Your task to perform on an android device: turn off notifications in google photos Image 0: 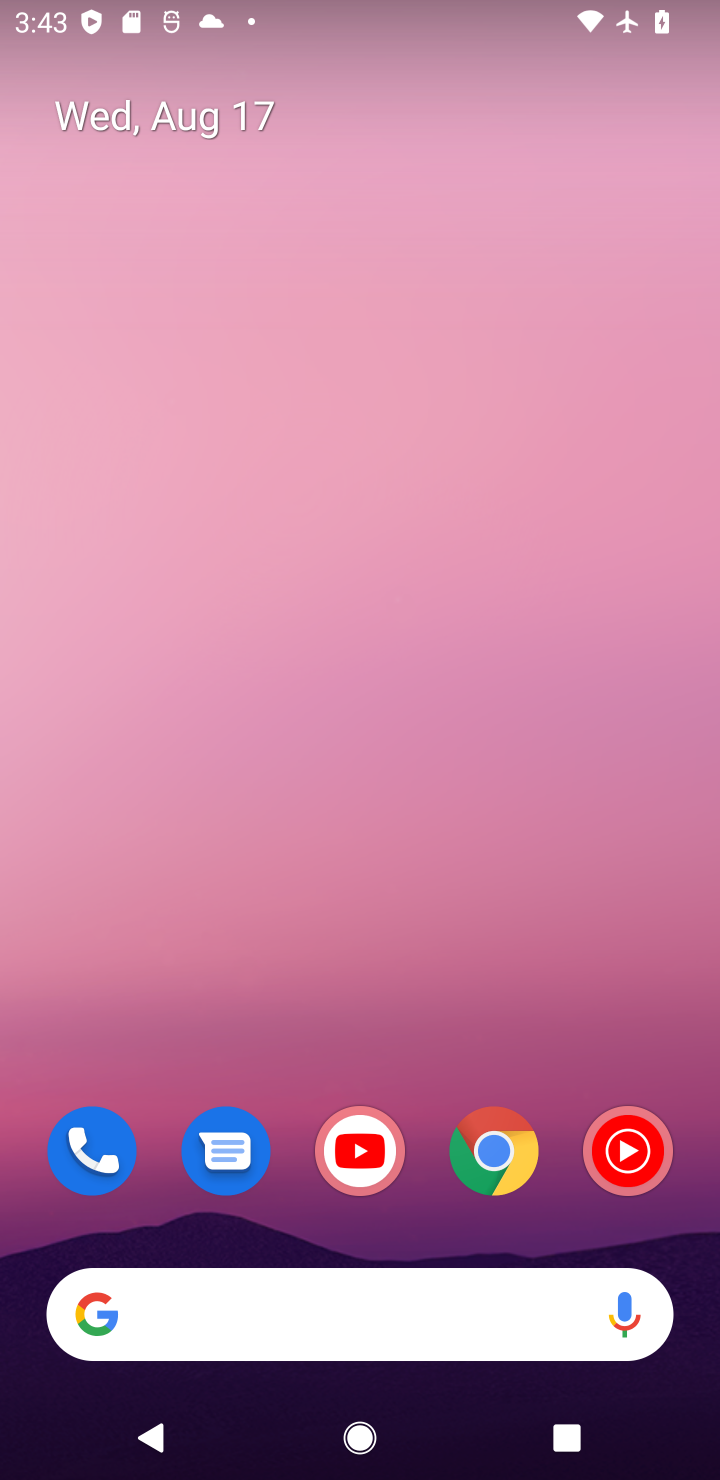
Step 0: drag from (476, 1021) to (525, 567)
Your task to perform on an android device: turn off notifications in google photos Image 1: 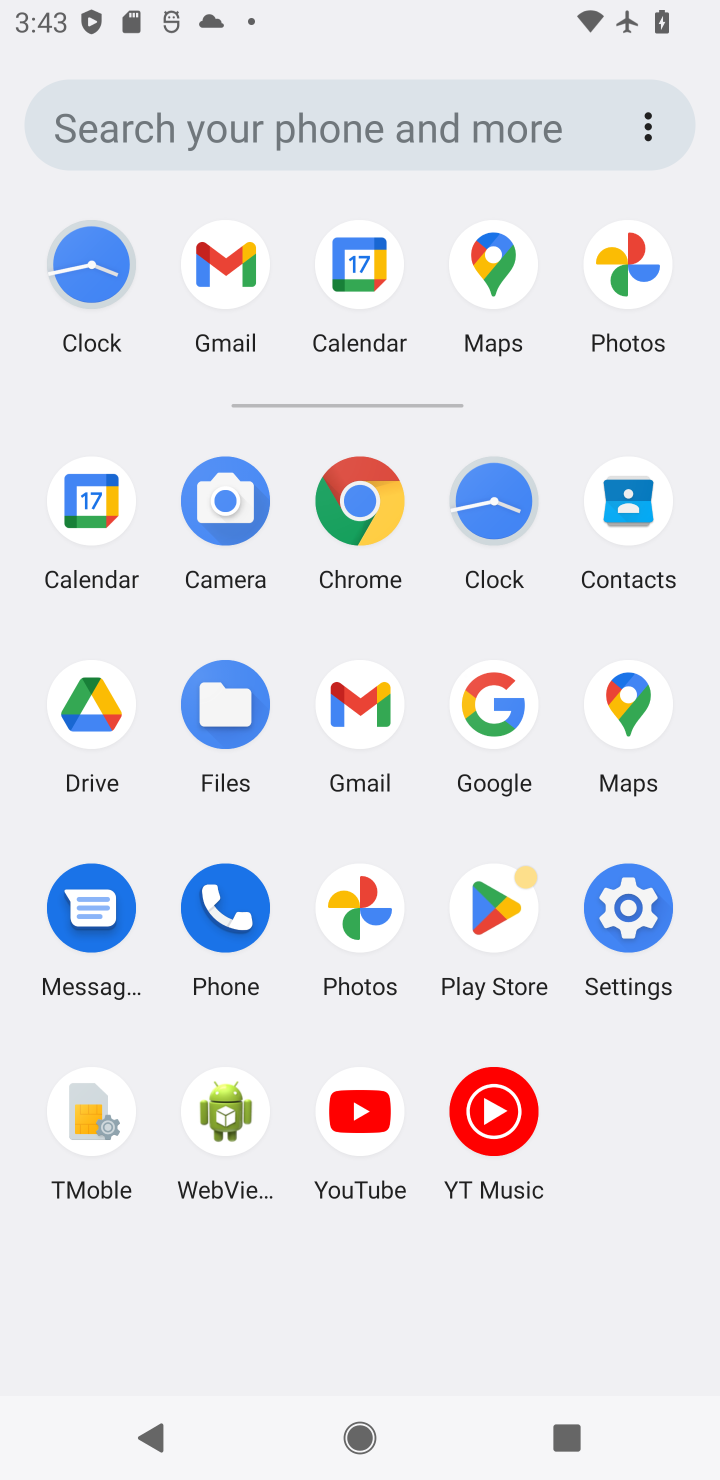
Step 1: click (343, 875)
Your task to perform on an android device: turn off notifications in google photos Image 2: 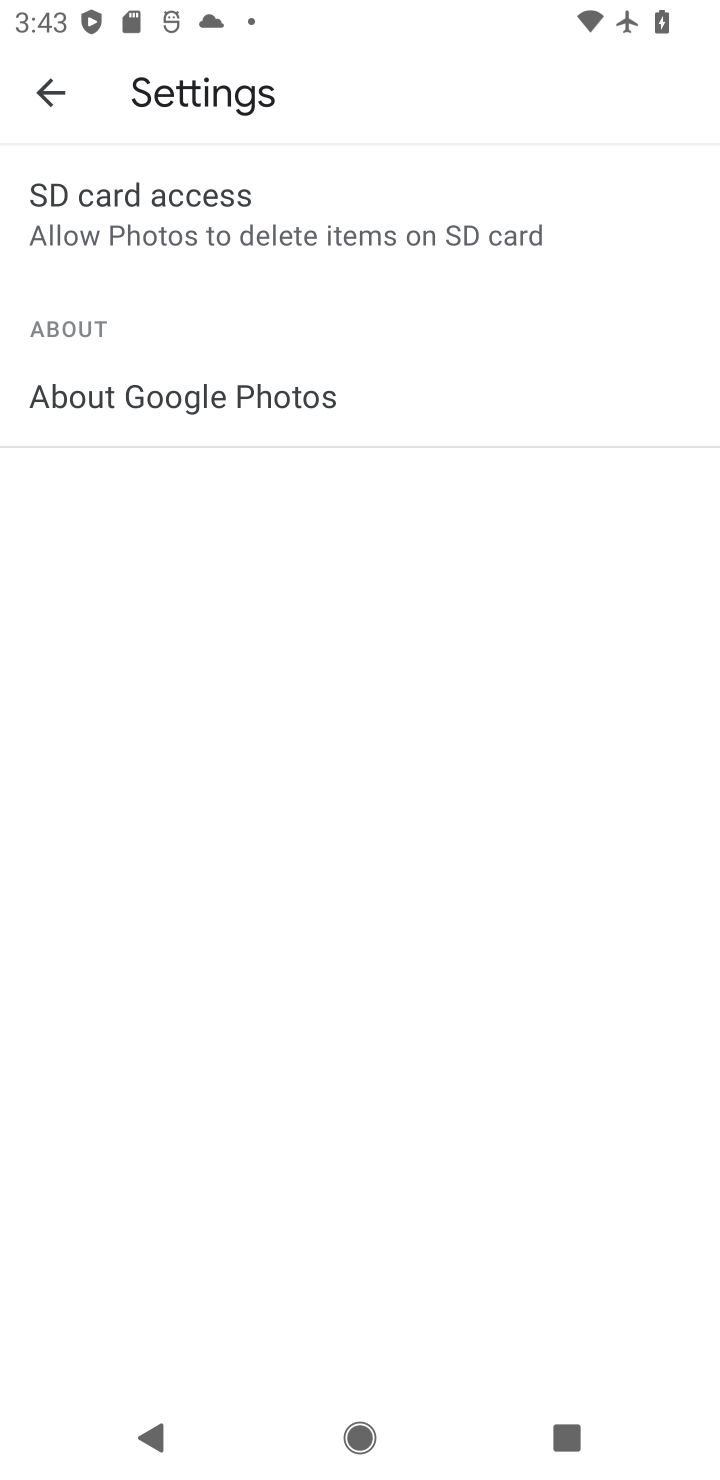
Step 2: click (34, 101)
Your task to perform on an android device: turn off notifications in google photos Image 3: 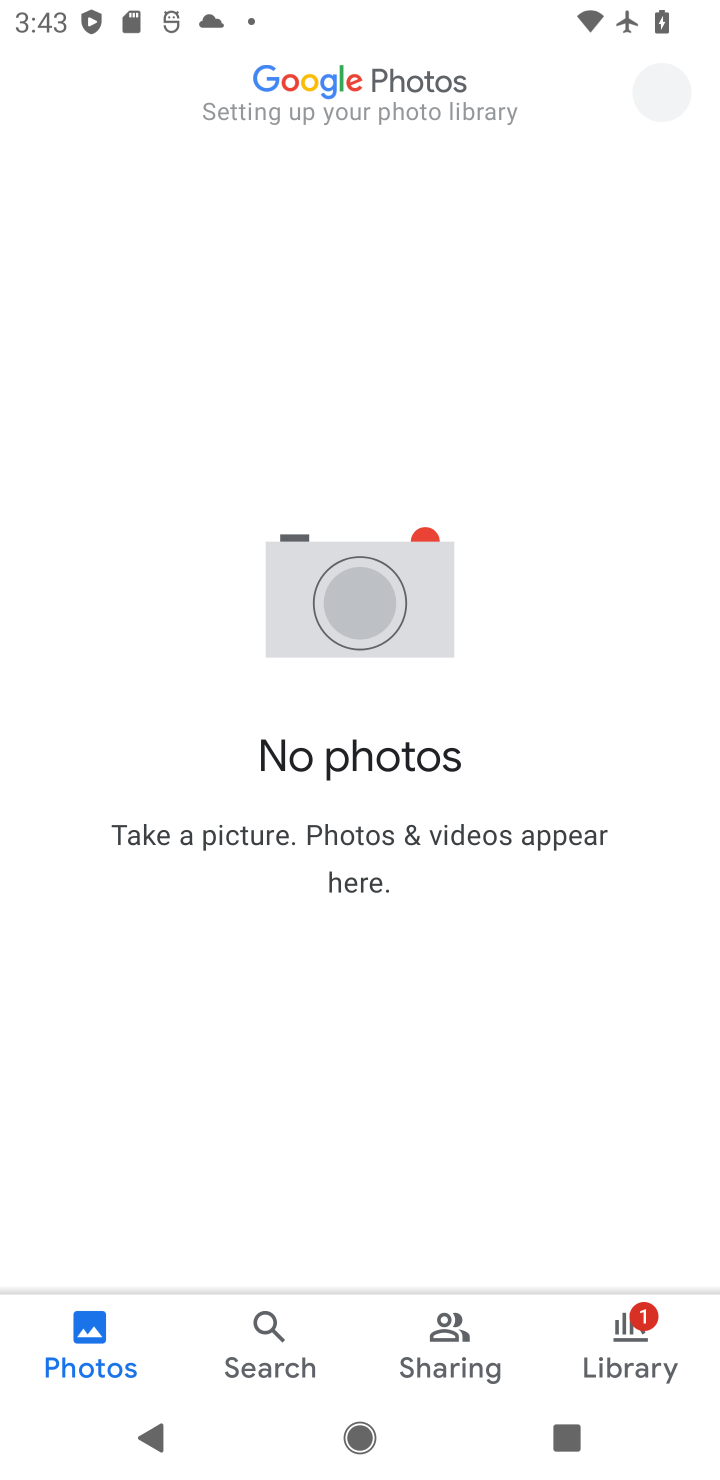
Step 3: click (664, 89)
Your task to perform on an android device: turn off notifications in google photos Image 4: 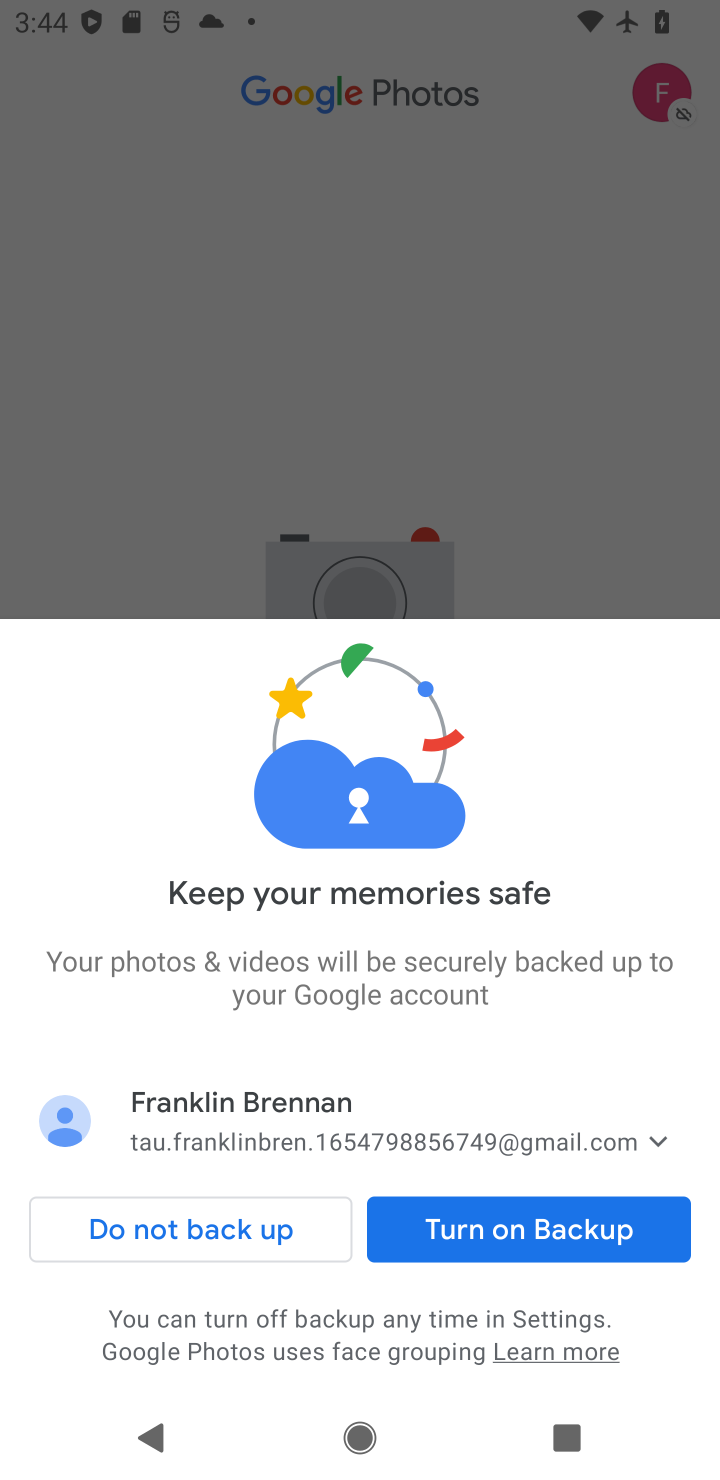
Step 4: click (228, 1232)
Your task to perform on an android device: turn off notifications in google photos Image 5: 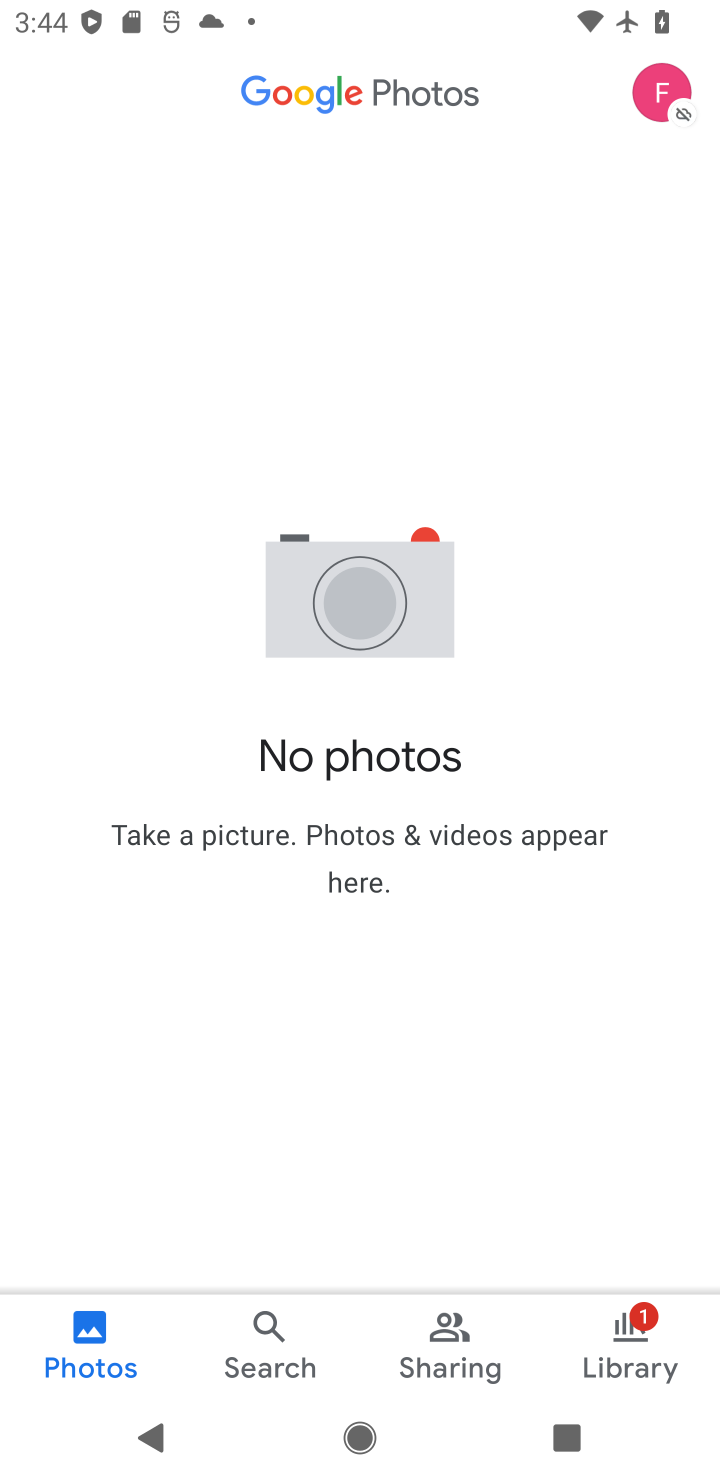
Step 5: click (664, 81)
Your task to perform on an android device: turn off notifications in google photos Image 6: 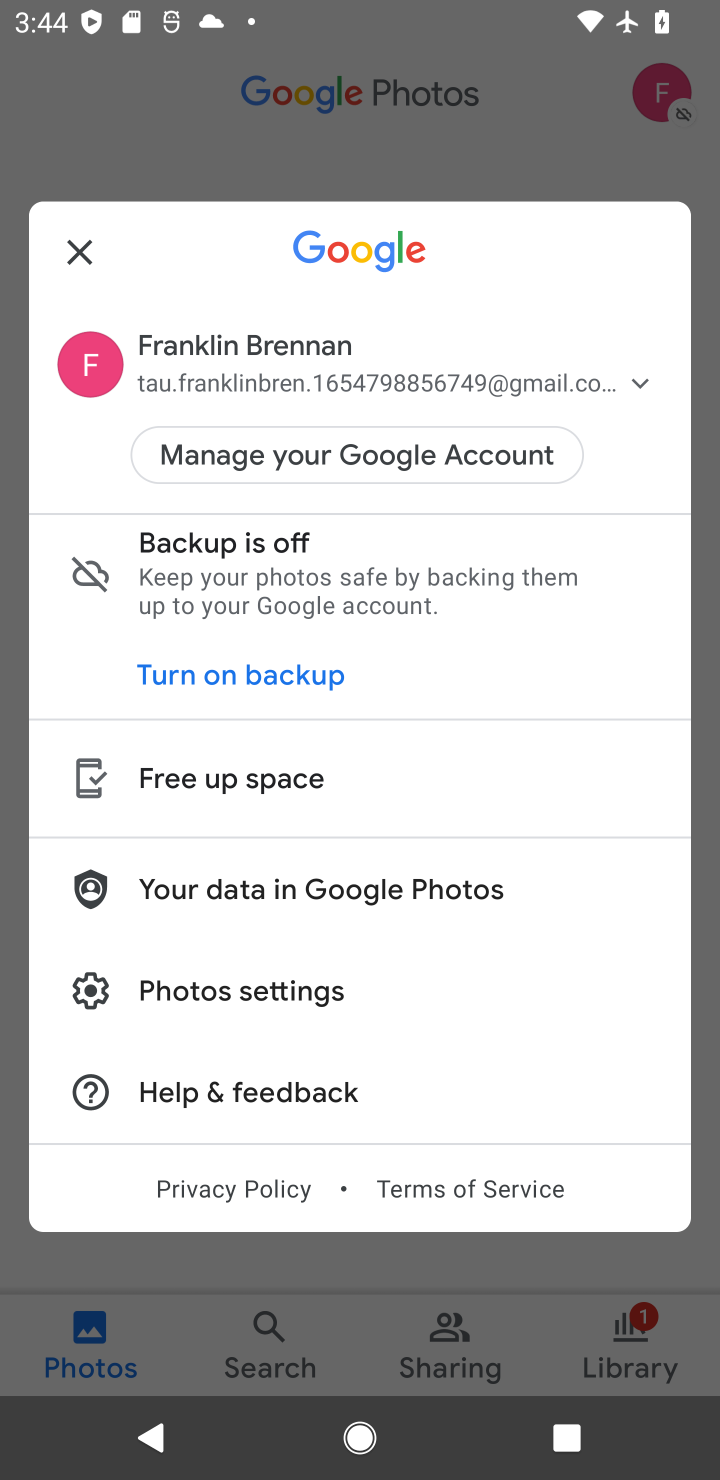
Step 6: click (251, 997)
Your task to perform on an android device: turn off notifications in google photos Image 7: 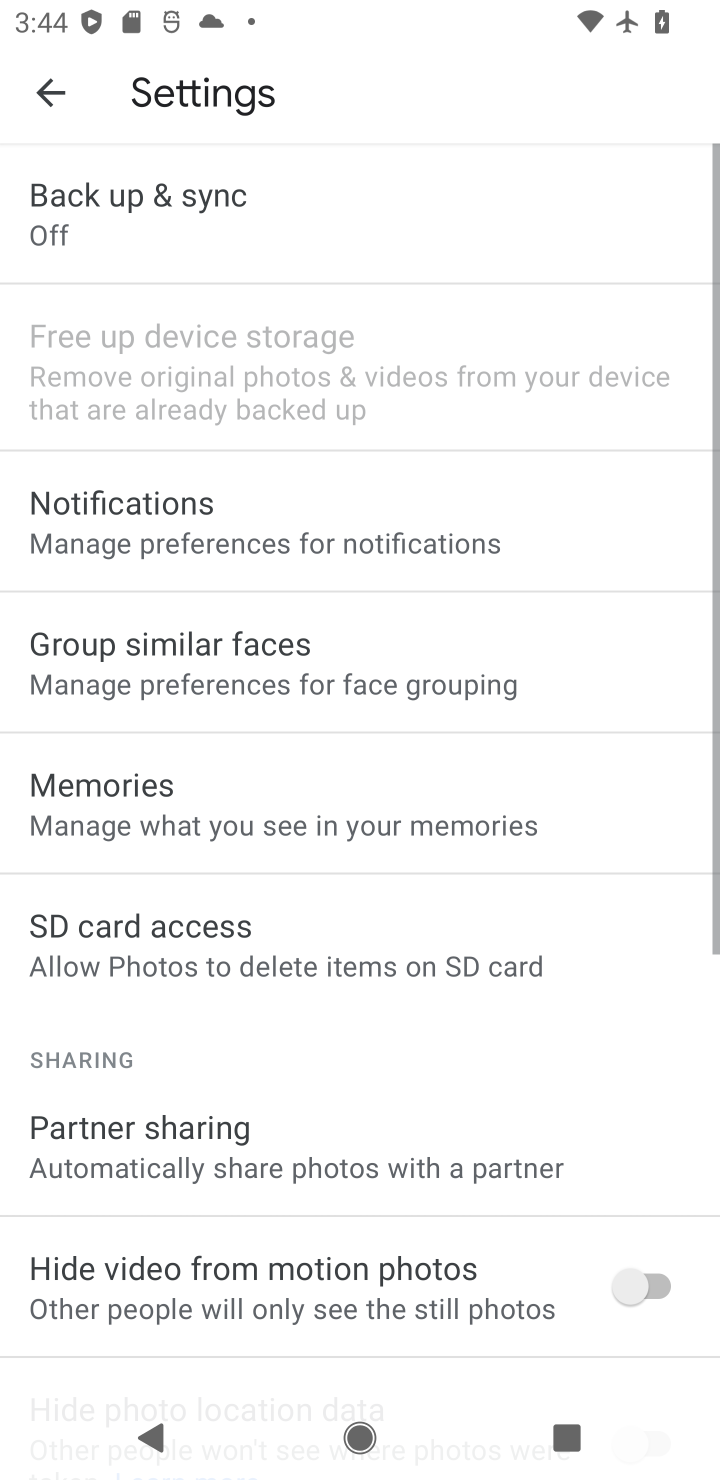
Step 7: drag from (231, 1210) to (710, 159)
Your task to perform on an android device: turn off notifications in google photos Image 8: 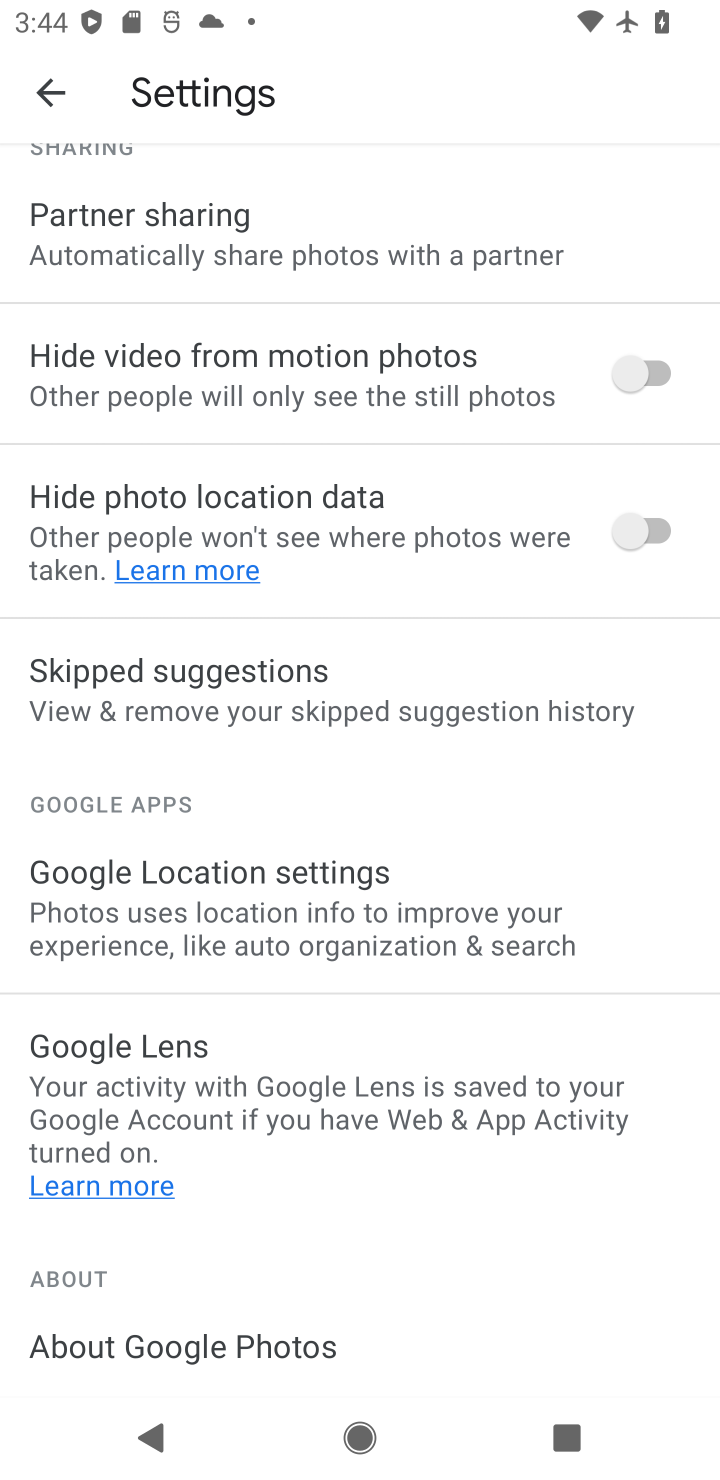
Step 8: drag from (244, 330) to (146, 1327)
Your task to perform on an android device: turn off notifications in google photos Image 9: 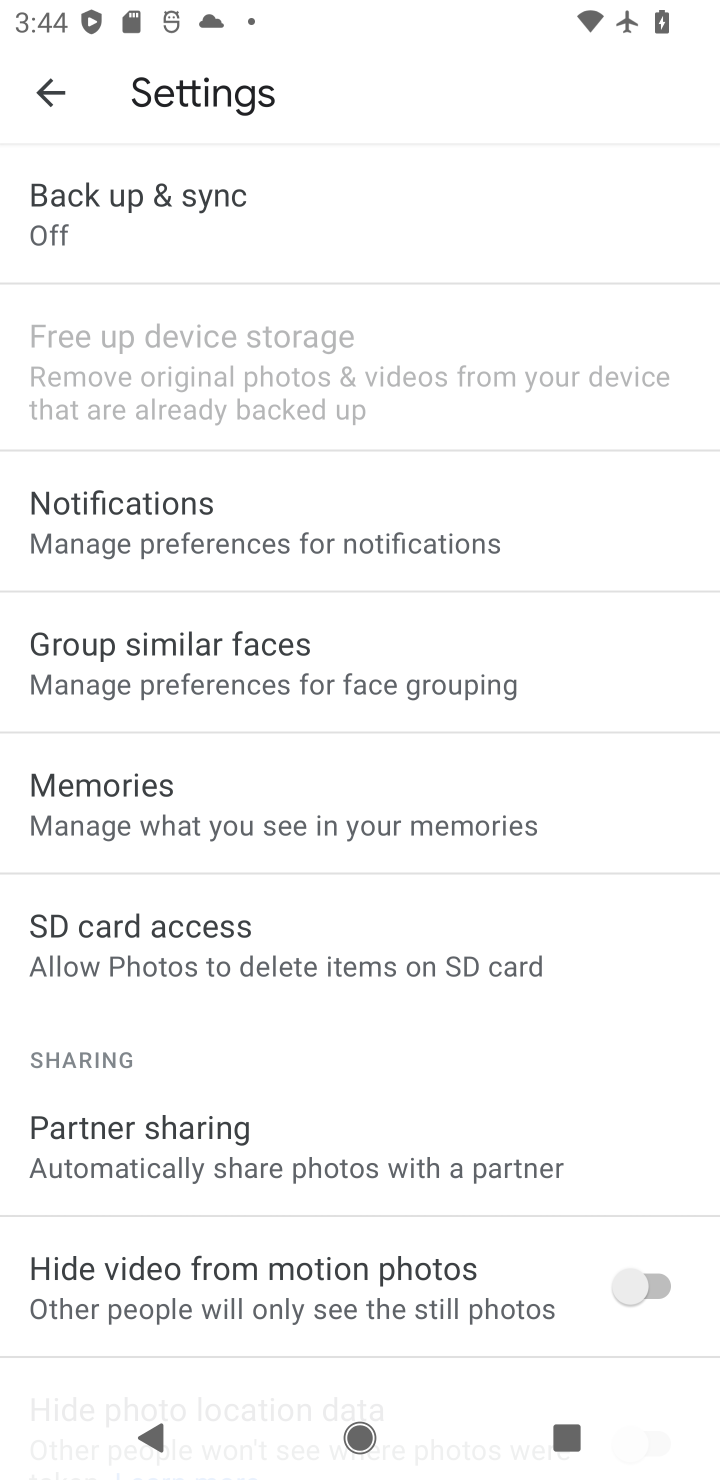
Step 9: click (160, 219)
Your task to perform on an android device: turn off notifications in google photos Image 10: 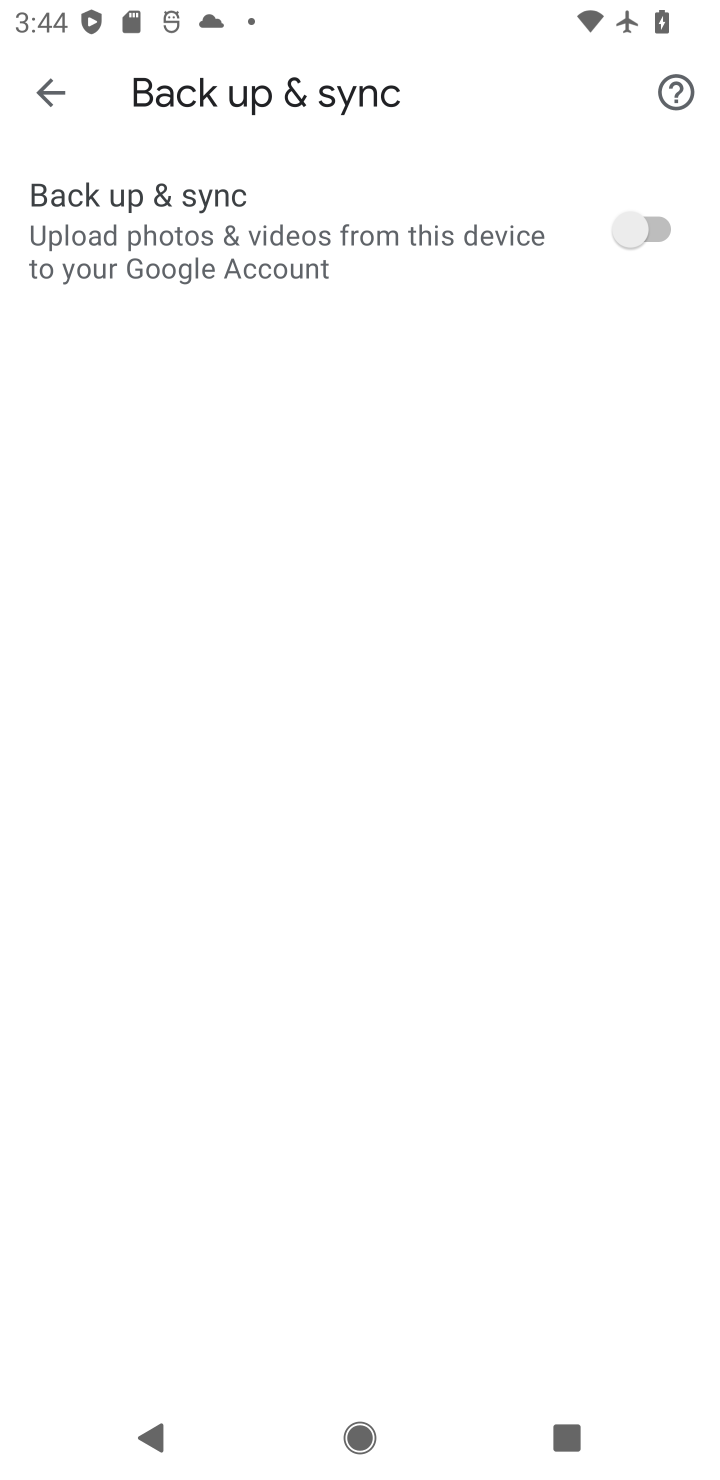
Step 10: click (650, 227)
Your task to perform on an android device: turn off notifications in google photos Image 11: 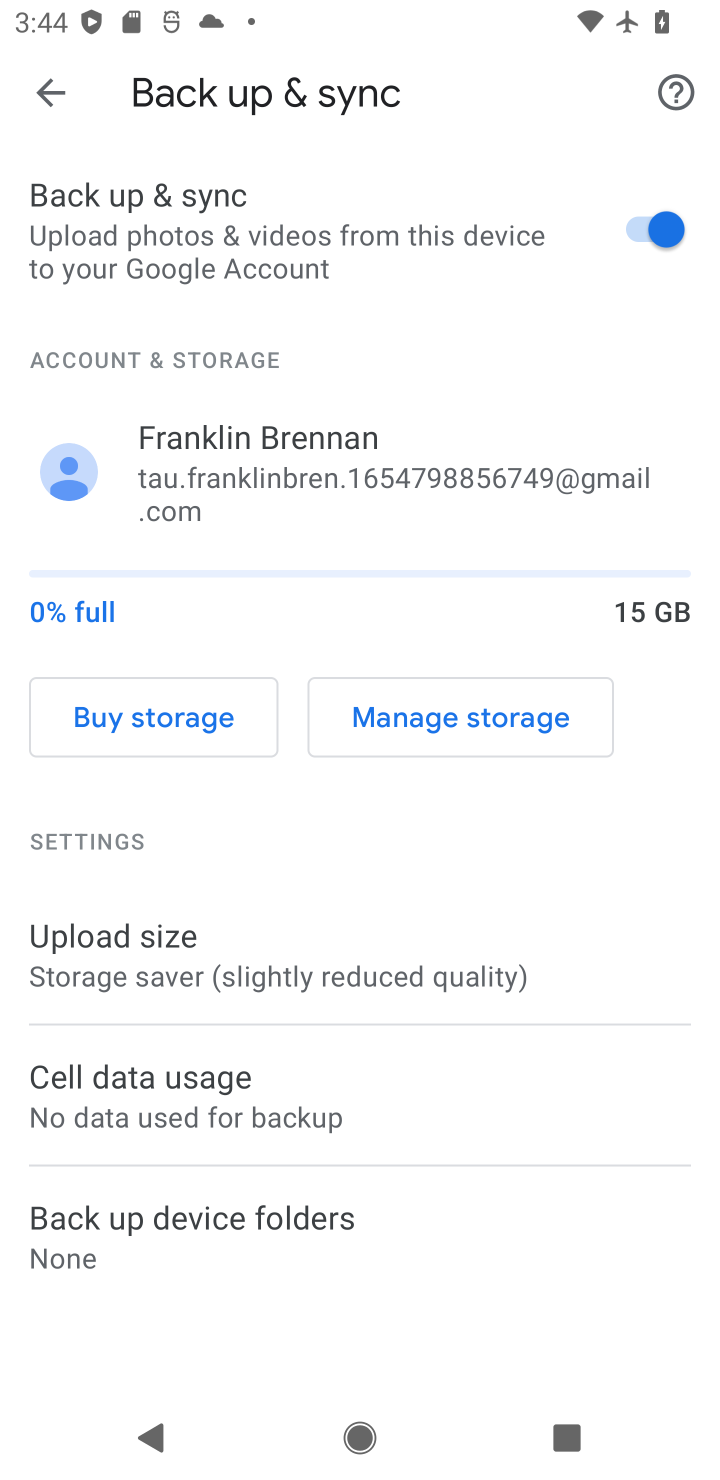
Step 11: drag from (292, 1169) to (464, 212)
Your task to perform on an android device: turn off notifications in google photos Image 12: 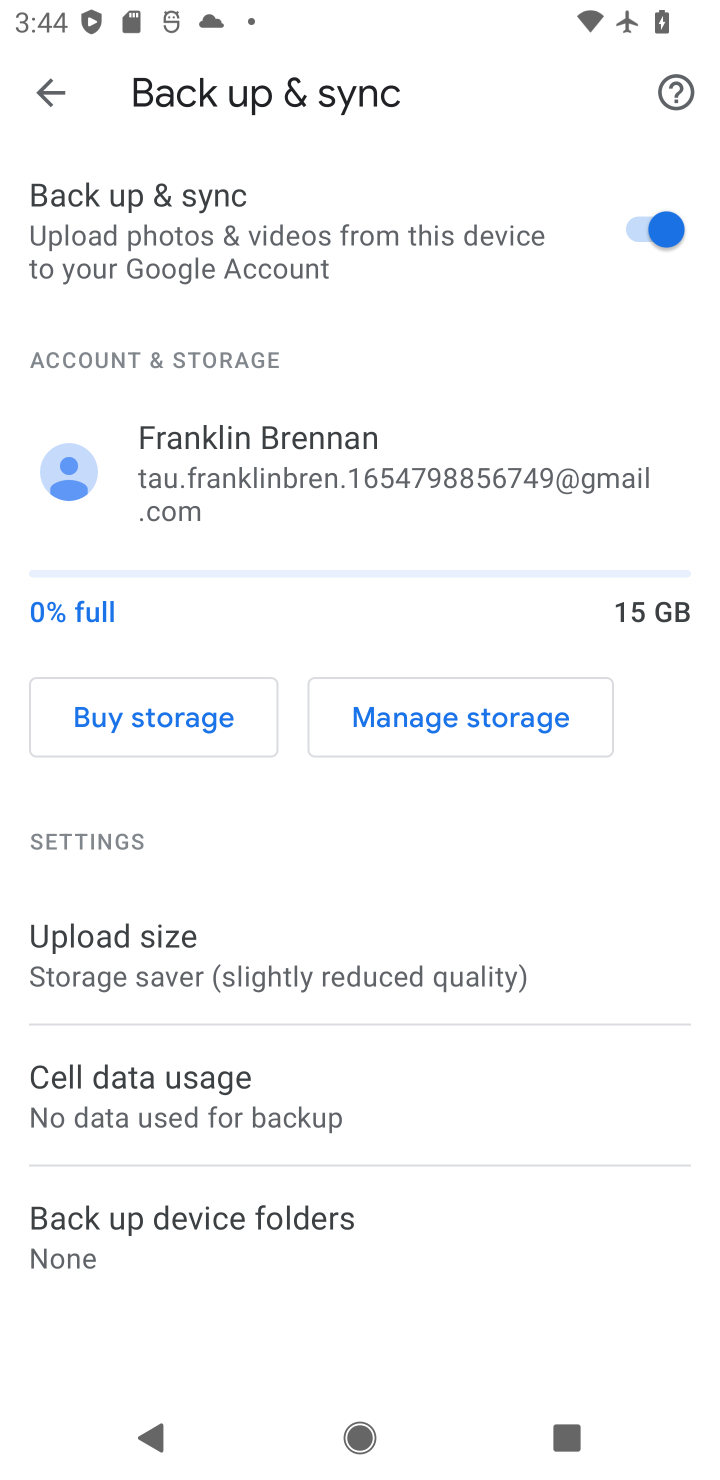
Step 12: drag from (252, 1029) to (449, 218)
Your task to perform on an android device: turn off notifications in google photos Image 13: 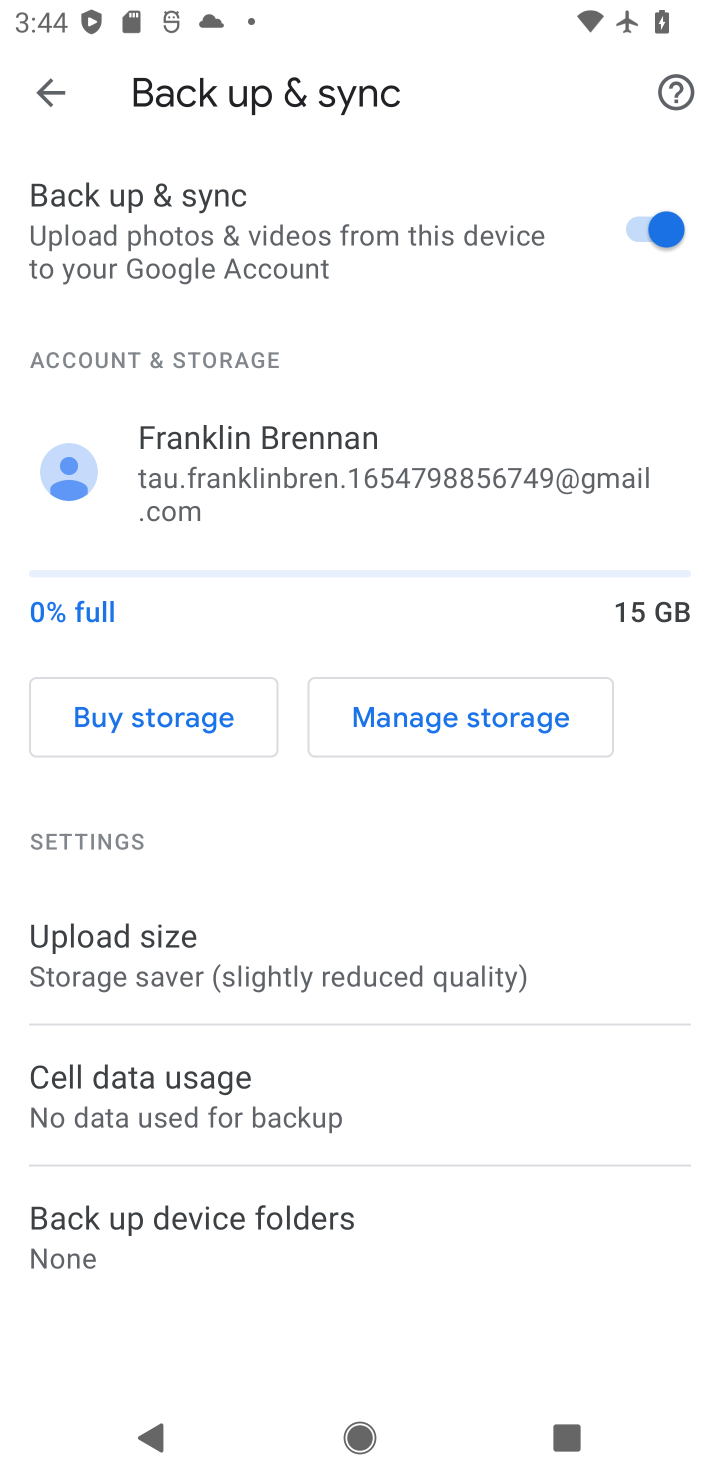
Step 13: click (44, 89)
Your task to perform on an android device: turn off notifications in google photos Image 14: 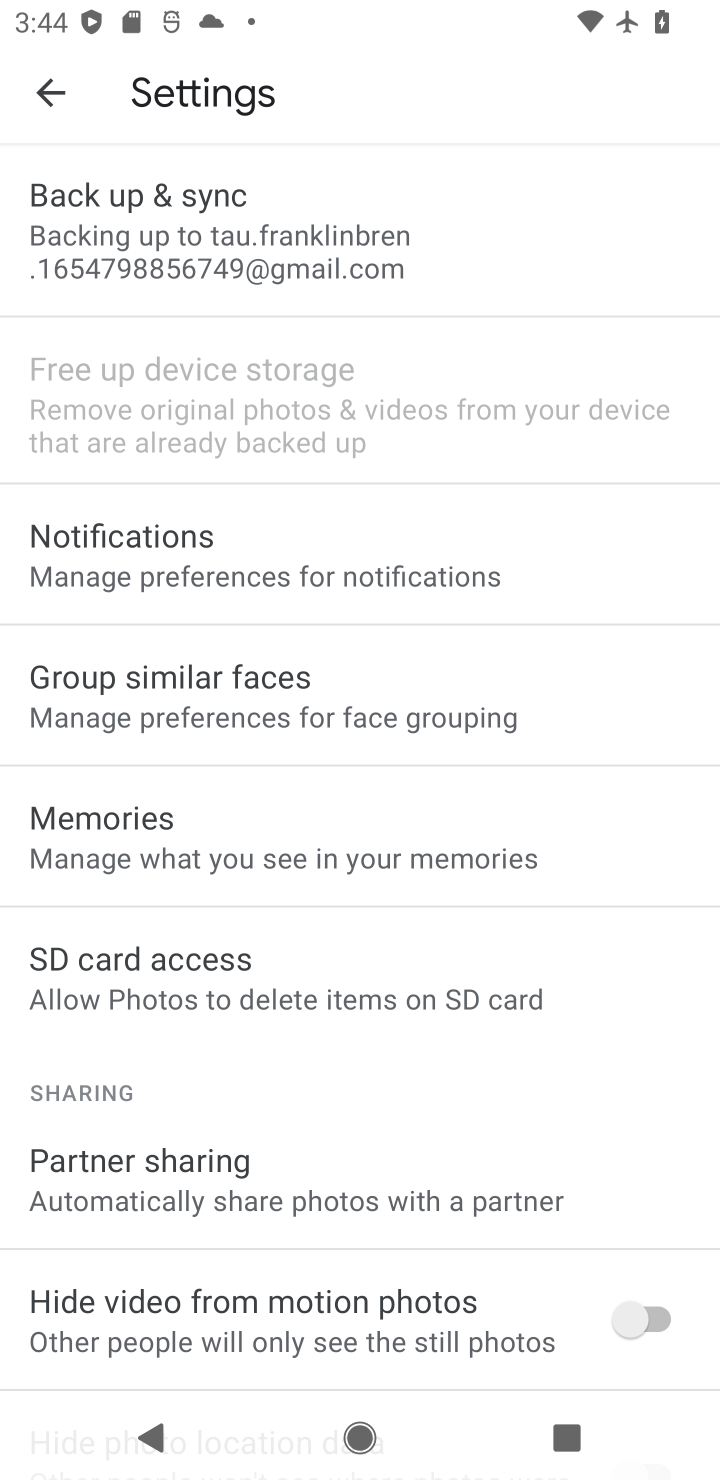
Step 14: click (177, 520)
Your task to perform on an android device: turn off notifications in google photos Image 15: 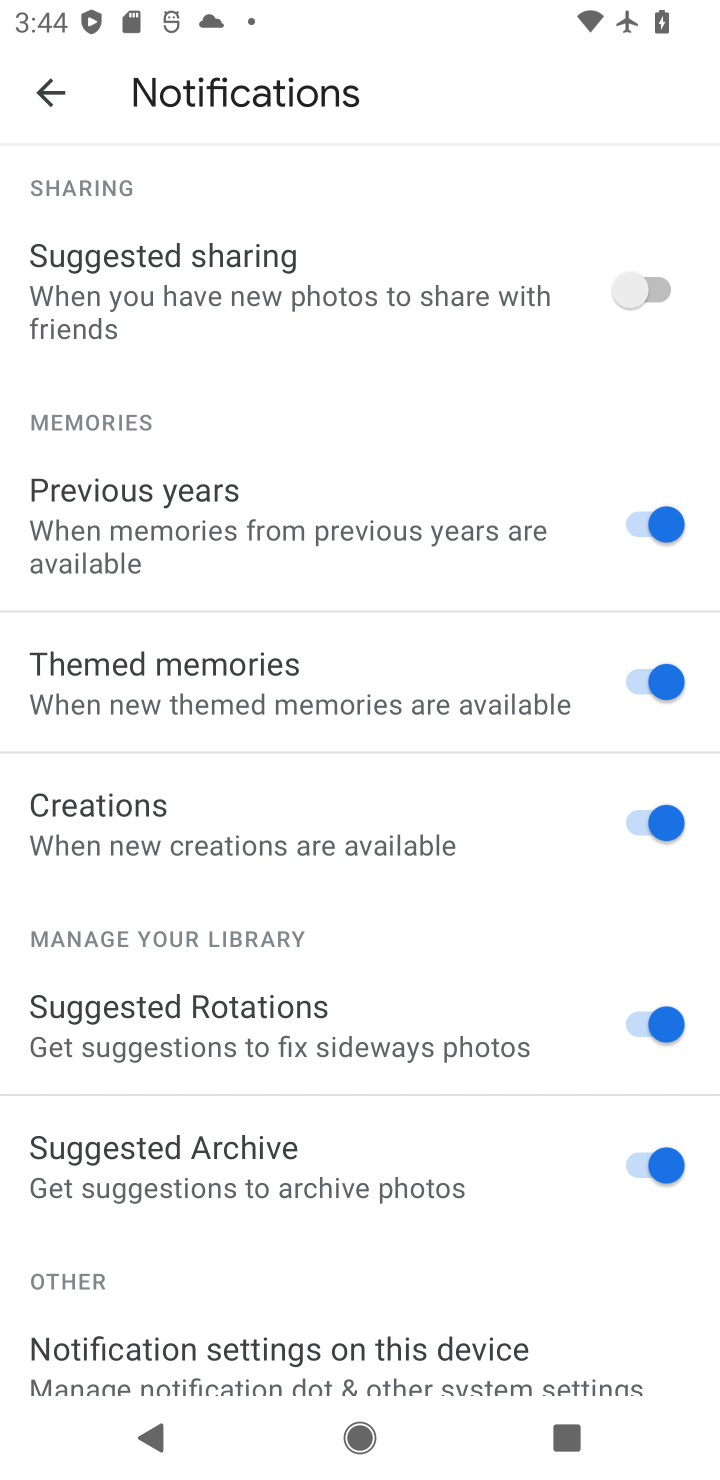
Step 15: drag from (213, 1117) to (291, 377)
Your task to perform on an android device: turn off notifications in google photos Image 16: 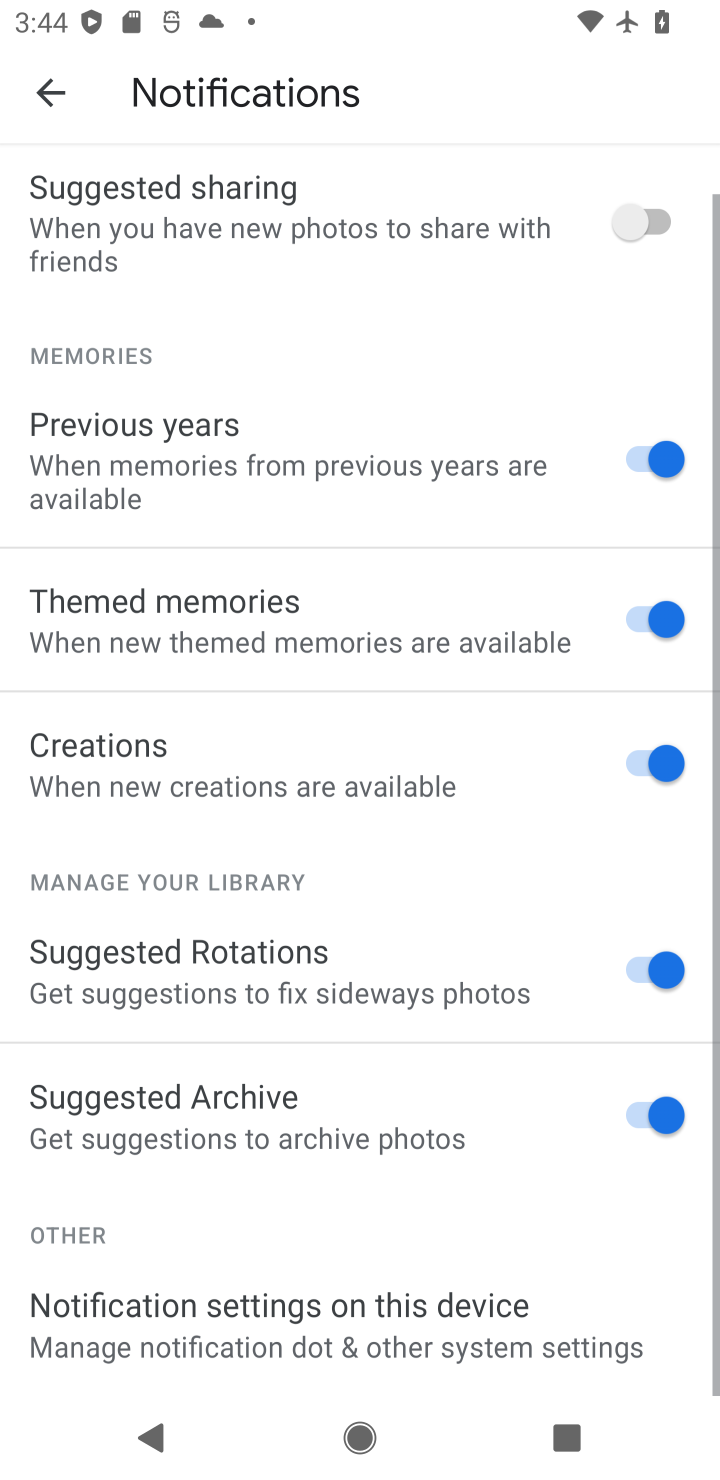
Step 16: click (304, 1297)
Your task to perform on an android device: turn off notifications in google photos Image 17: 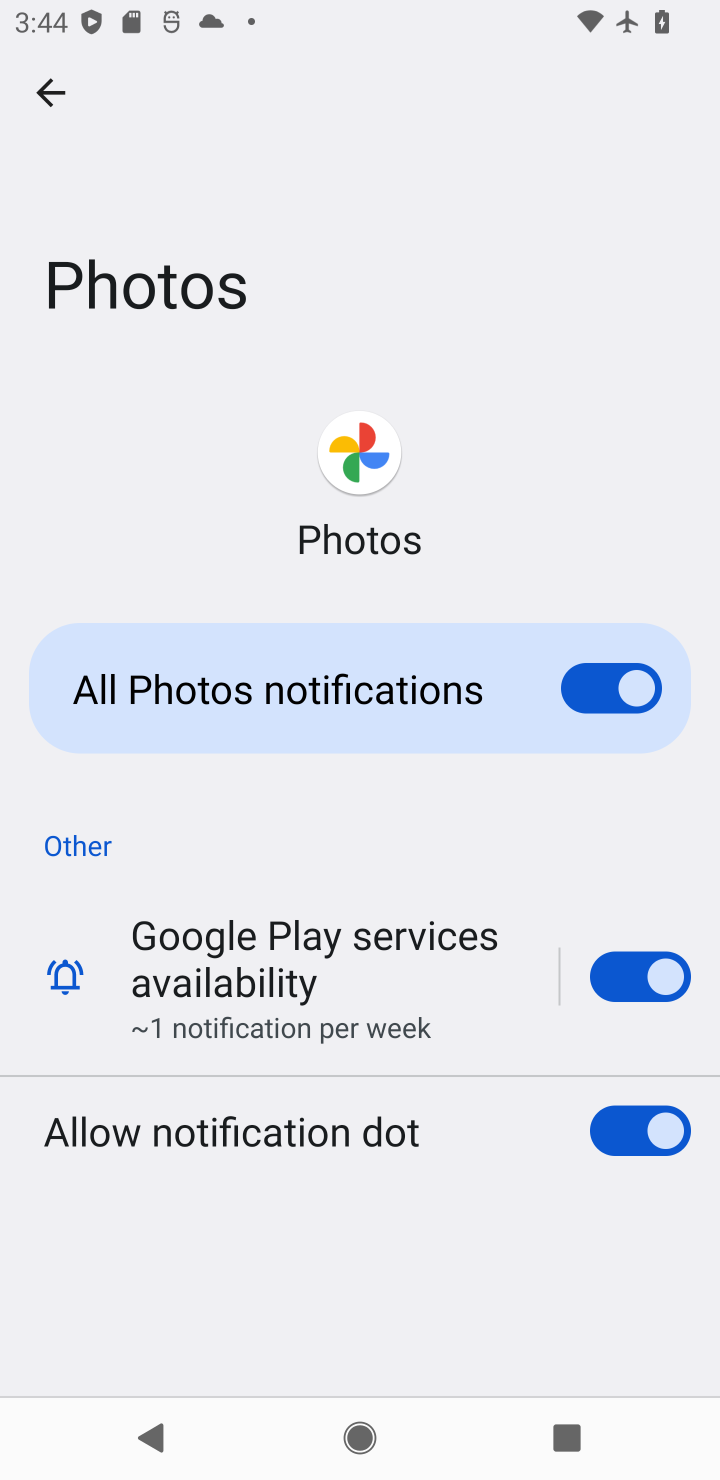
Step 17: click (513, 657)
Your task to perform on an android device: turn off notifications in google photos Image 18: 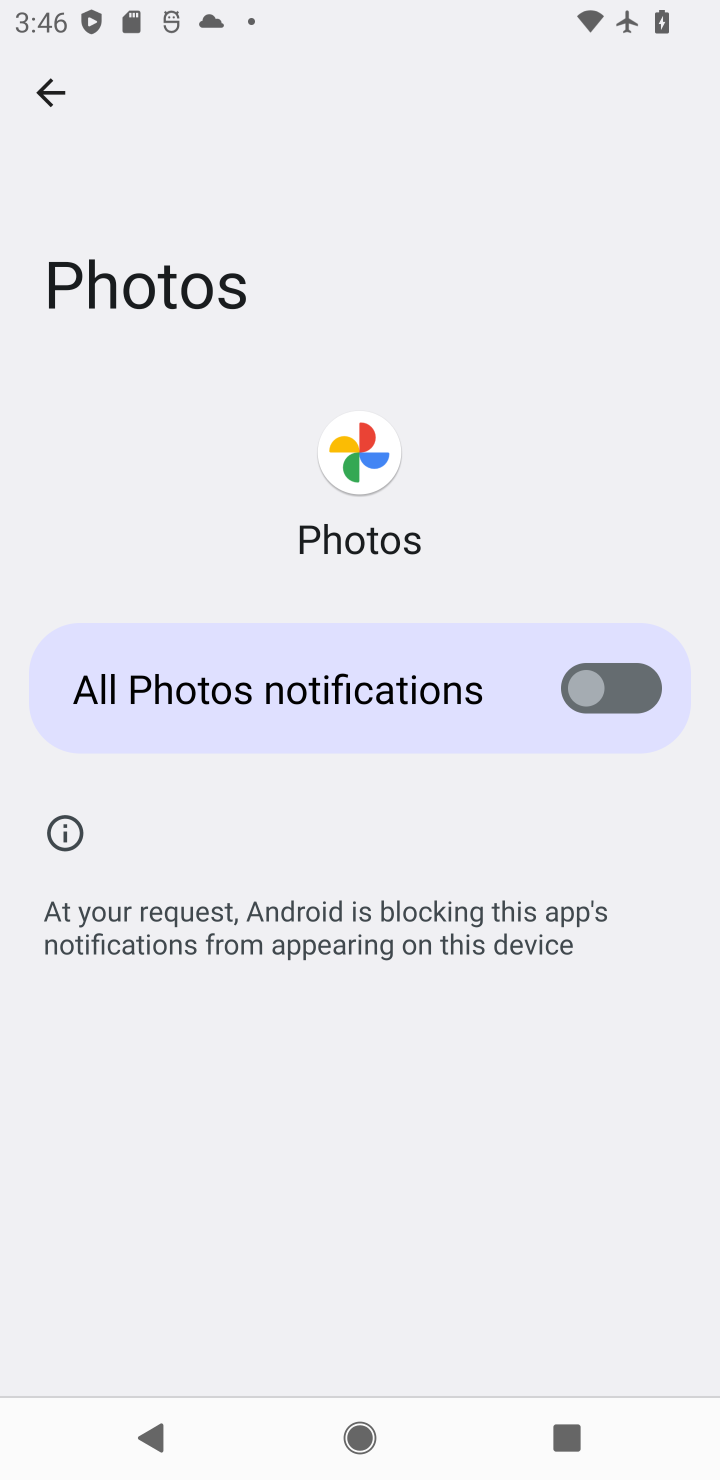
Step 18: task complete